Your task to perform on an android device: set the stopwatch Image 0: 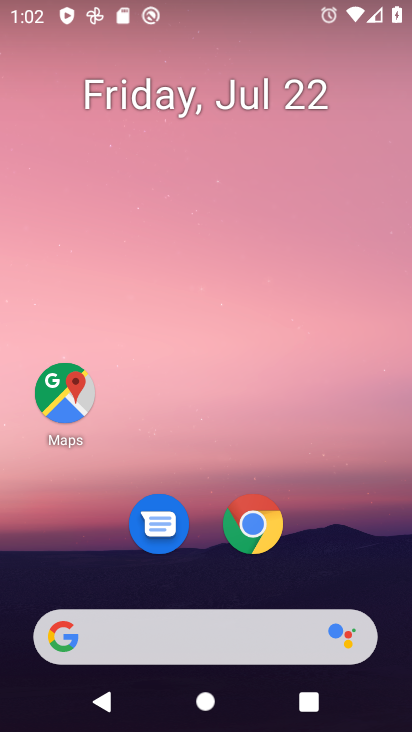
Step 0: press home button
Your task to perform on an android device: set the stopwatch Image 1: 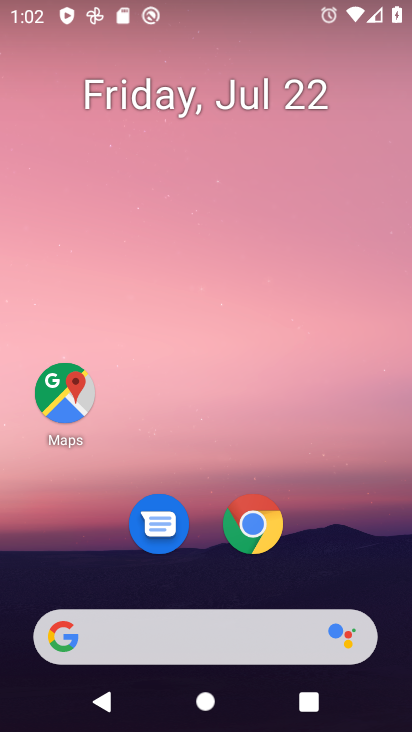
Step 1: drag from (192, 633) to (356, 88)
Your task to perform on an android device: set the stopwatch Image 2: 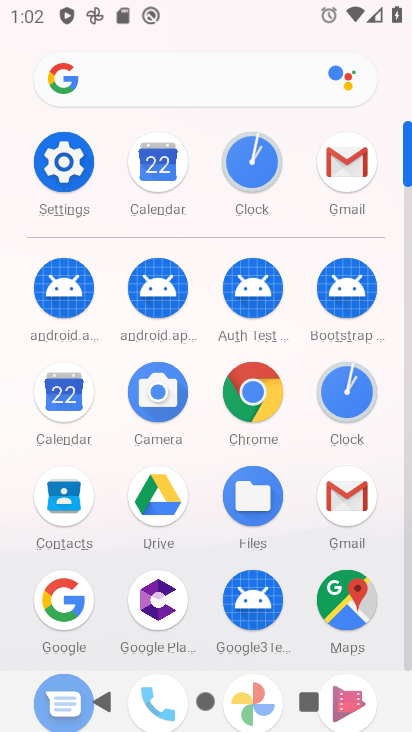
Step 2: click (249, 149)
Your task to perform on an android device: set the stopwatch Image 3: 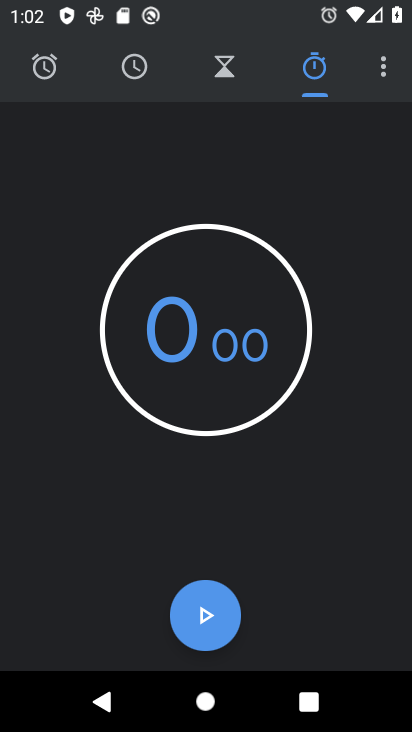
Step 3: task complete